Your task to perform on an android device: Search for Mexican restaurants on Maps Image 0: 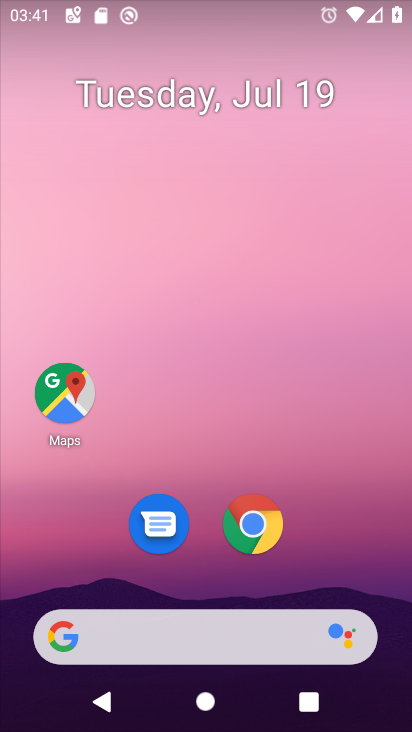
Step 0: drag from (211, 456) to (190, 11)
Your task to perform on an android device: Search for Mexican restaurants on Maps Image 1: 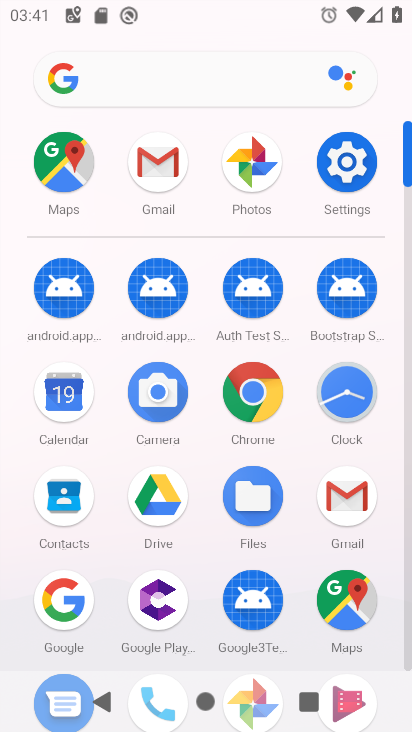
Step 1: click (66, 161)
Your task to perform on an android device: Search for Mexican restaurants on Maps Image 2: 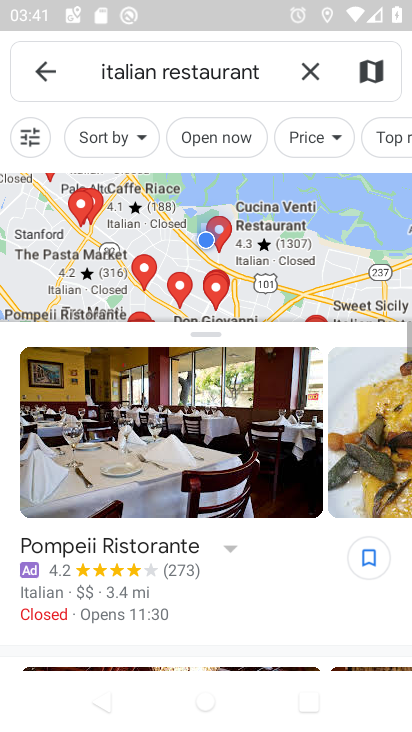
Step 2: click (309, 67)
Your task to perform on an android device: Search for Mexican restaurants on Maps Image 3: 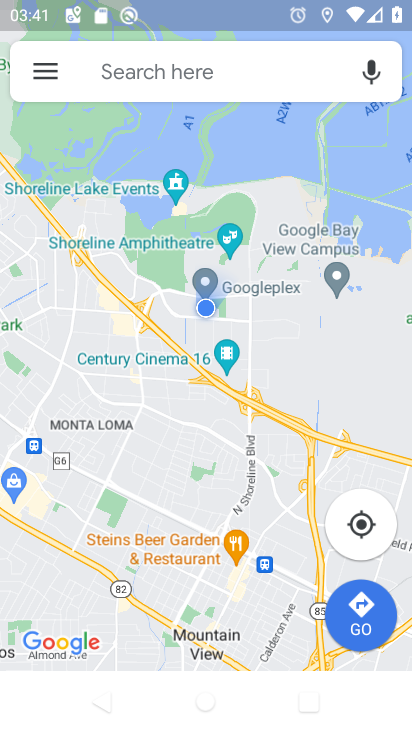
Step 3: click (263, 86)
Your task to perform on an android device: Search for Mexican restaurants on Maps Image 4: 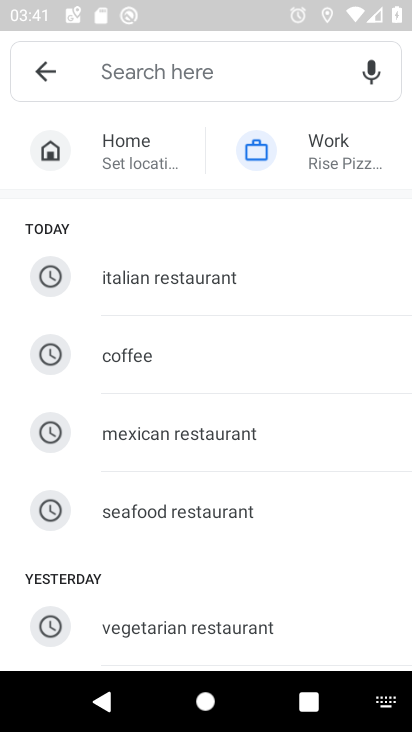
Step 4: click (188, 433)
Your task to perform on an android device: Search for Mexican restaurants on Maps Image 5: 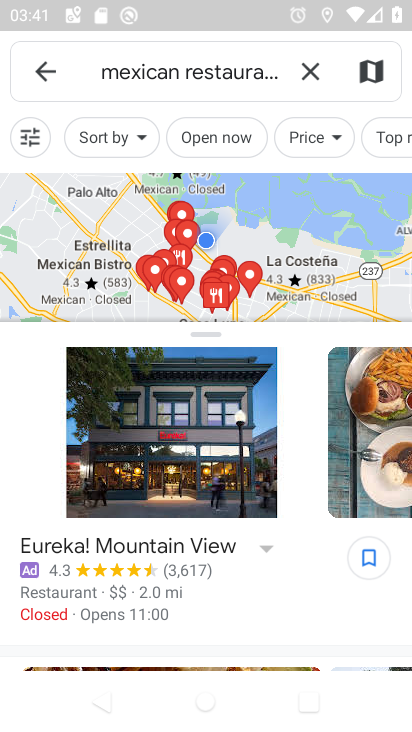
Step 5: task complete